Your task to perform on an android device: change notifications settings Image 0: 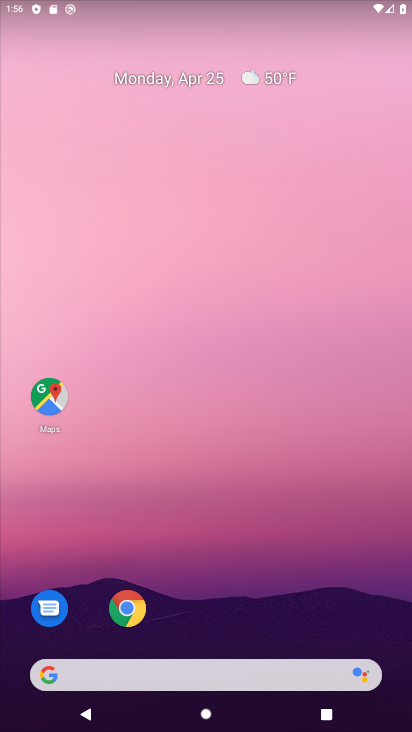
Step 0: drag from (214, 637) to (235, 291)
Your task to perform on an android device: change notifications settings Image 1: 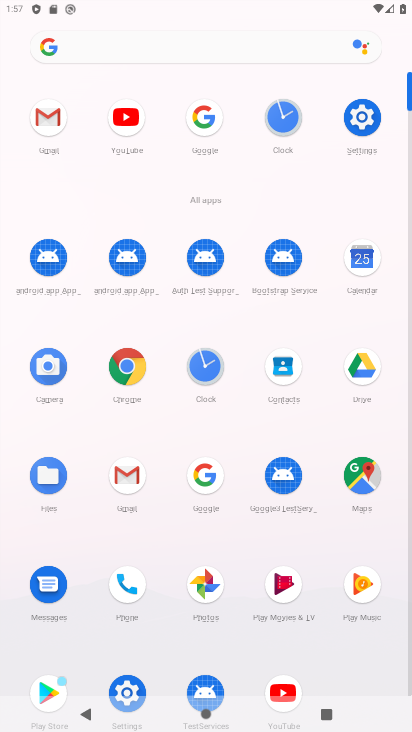
Step 1: click (372, 127)
Your task to perform on an android device: change notifications settings Image 2: 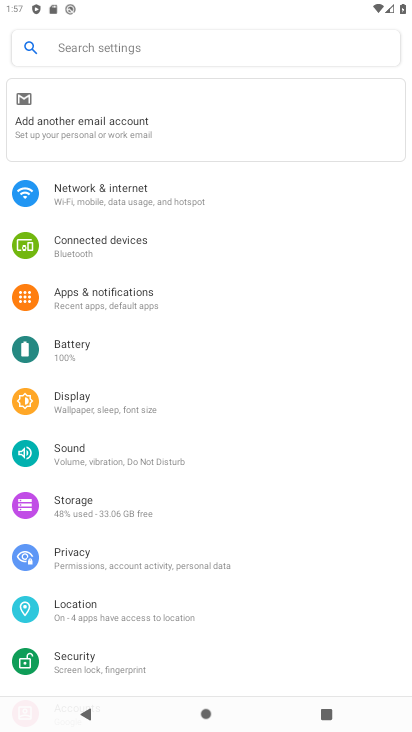
Step 2: click (152, 294)
Your task to perform on an android device: change notifications settings Image 3: 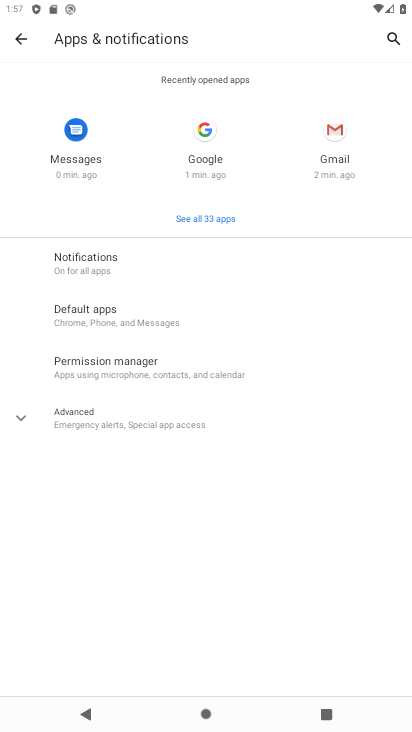
Step 3: click (151, 267)
Your task to perform on an android device: change notifications settings Image 4: 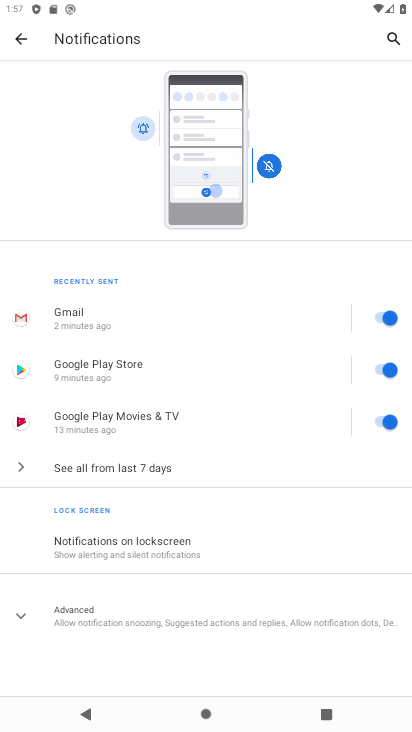
Step 4: click (242, 546)
Your task to perform on an android device: change notifications settings Image 5: 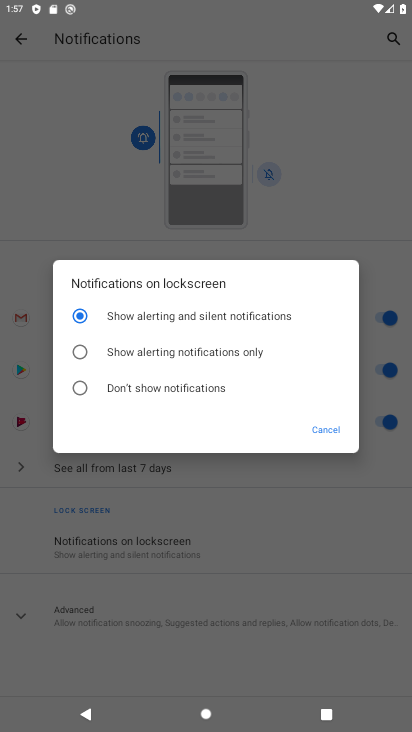
Step 5: click (154, 390)
Your task to perform on an android device: change notifications settings Image 6: 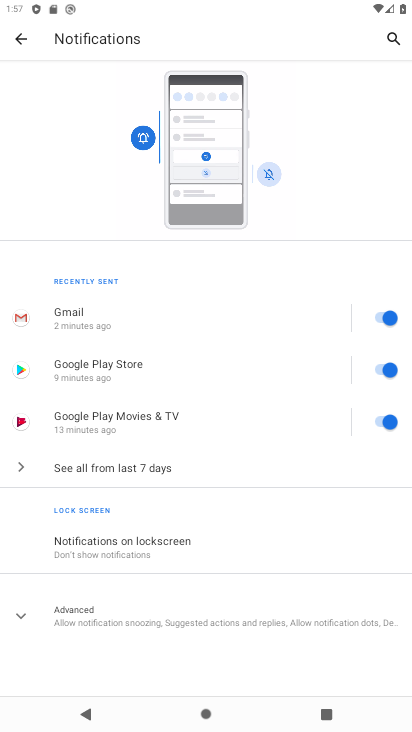
Step 6: task complete